Your task to perform on an android device: Open the phone app and click the voicemail tab. Image 0: 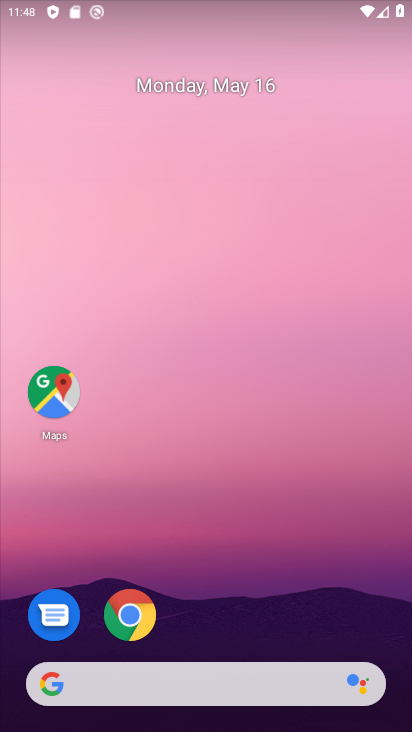
Step 0: drag from (246, 617) to (263, 150)
Your task to perform on an android device: Open the phone app and click the voicemail tab. Image 1: 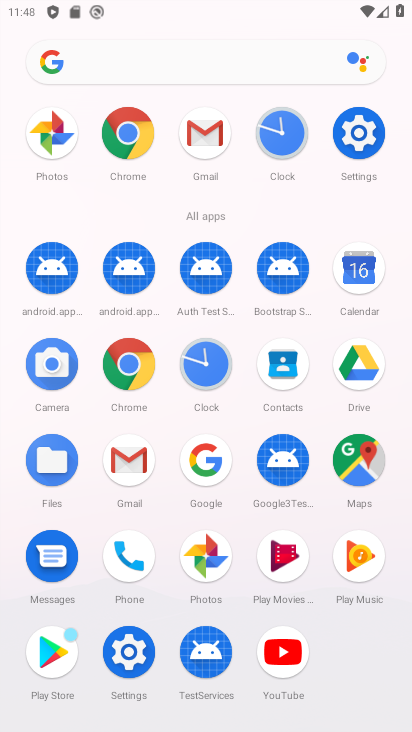
Step 1: click (111, 573)
Your task to perform on an android device: Open the phone app and click the voicemail tab. Image 2: 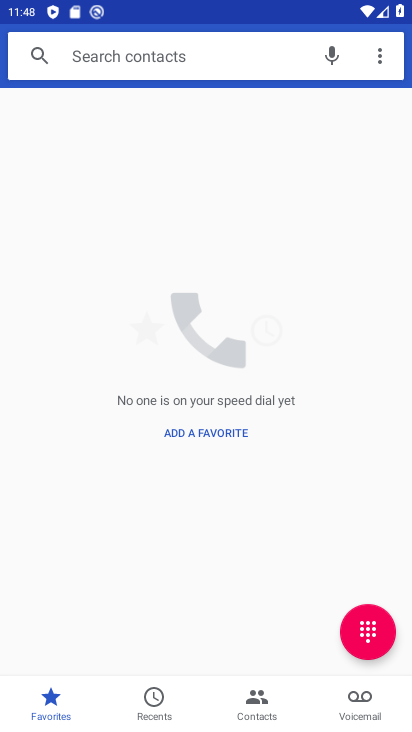
Step 2: click (365, 696)
Your task to perform on an android device: Open the phone app and click the voicemail tab. Image 3: 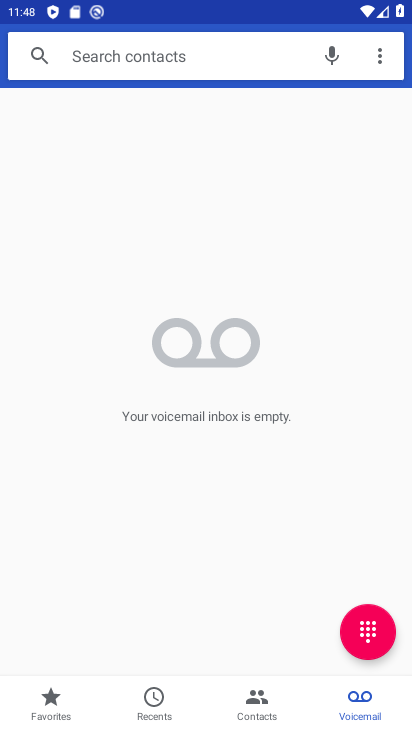
Step 3: task complete